Your task to perform on an android device: Search for a new blush on Sephora Image 0: 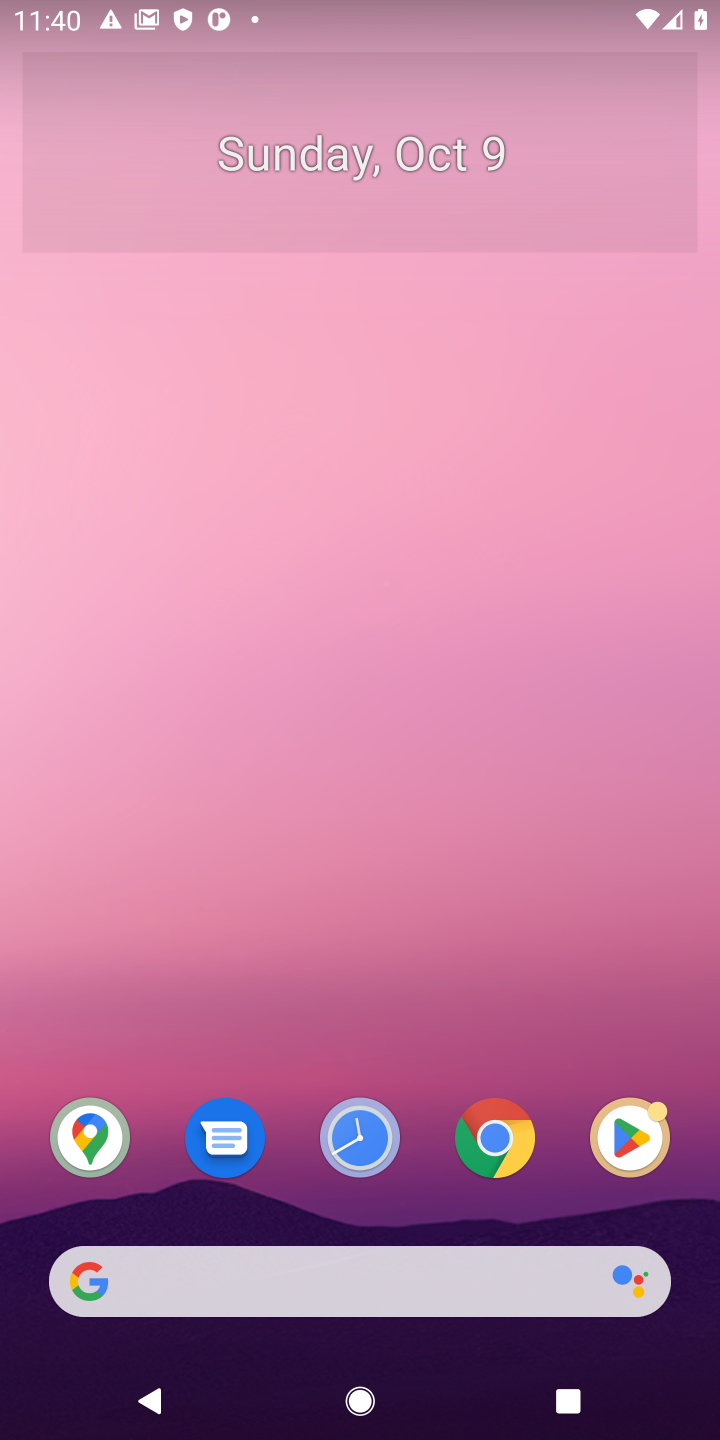
Step 0: click (515, 1120)
Your task to perform on an android device: Search for a new blush on Sephora Image 1: 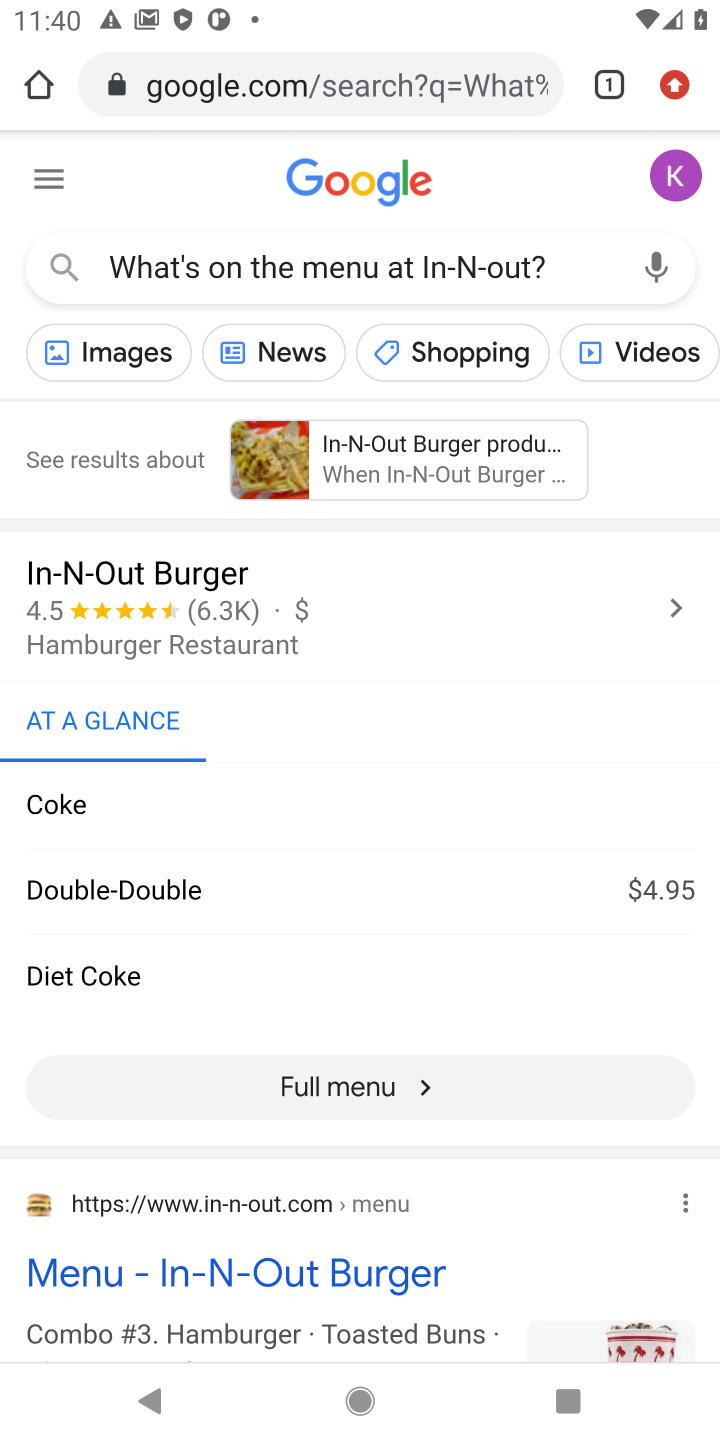
Step 1: click (550, 282)
Your task to perform on an android device: Search for a new blush on Sephora Image 2: 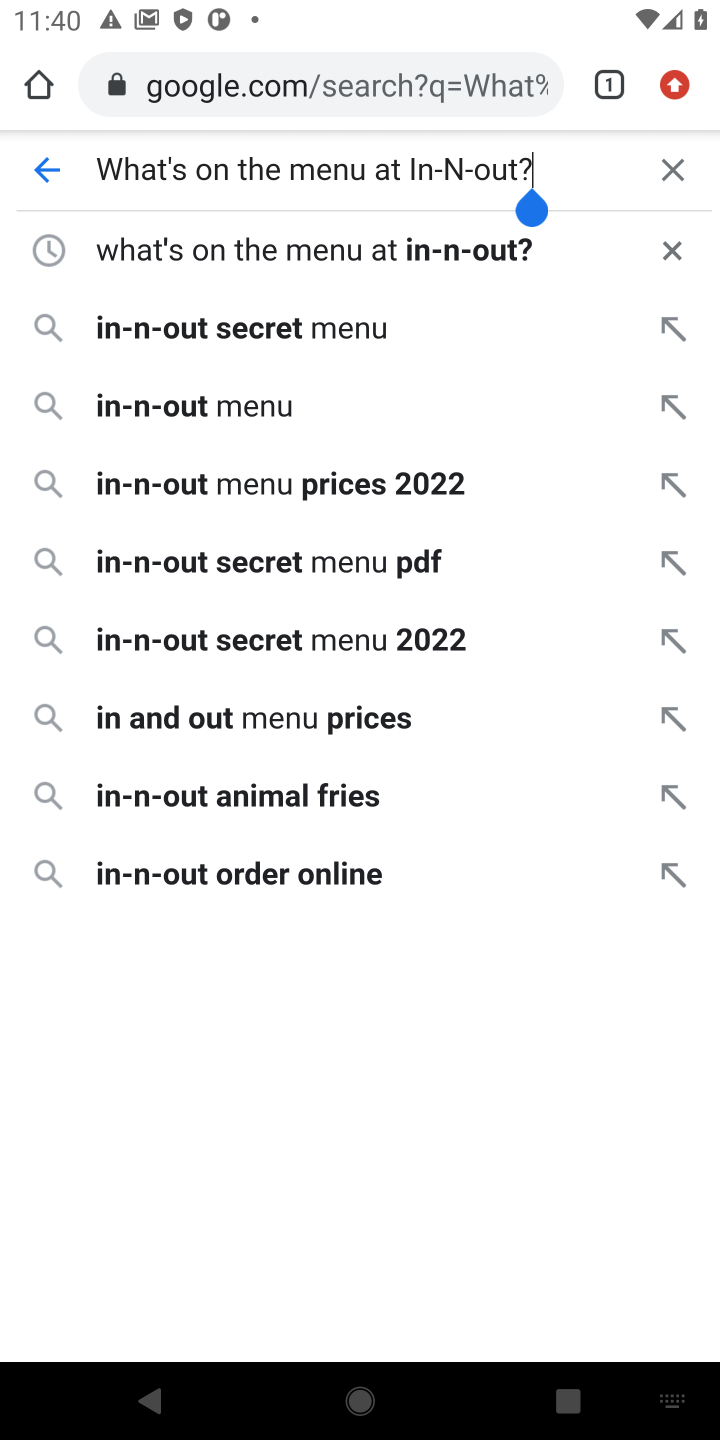
Step 2: click (677, 163)
Your task to perform on an android device: Search for a new blush on Sephora Image 3: 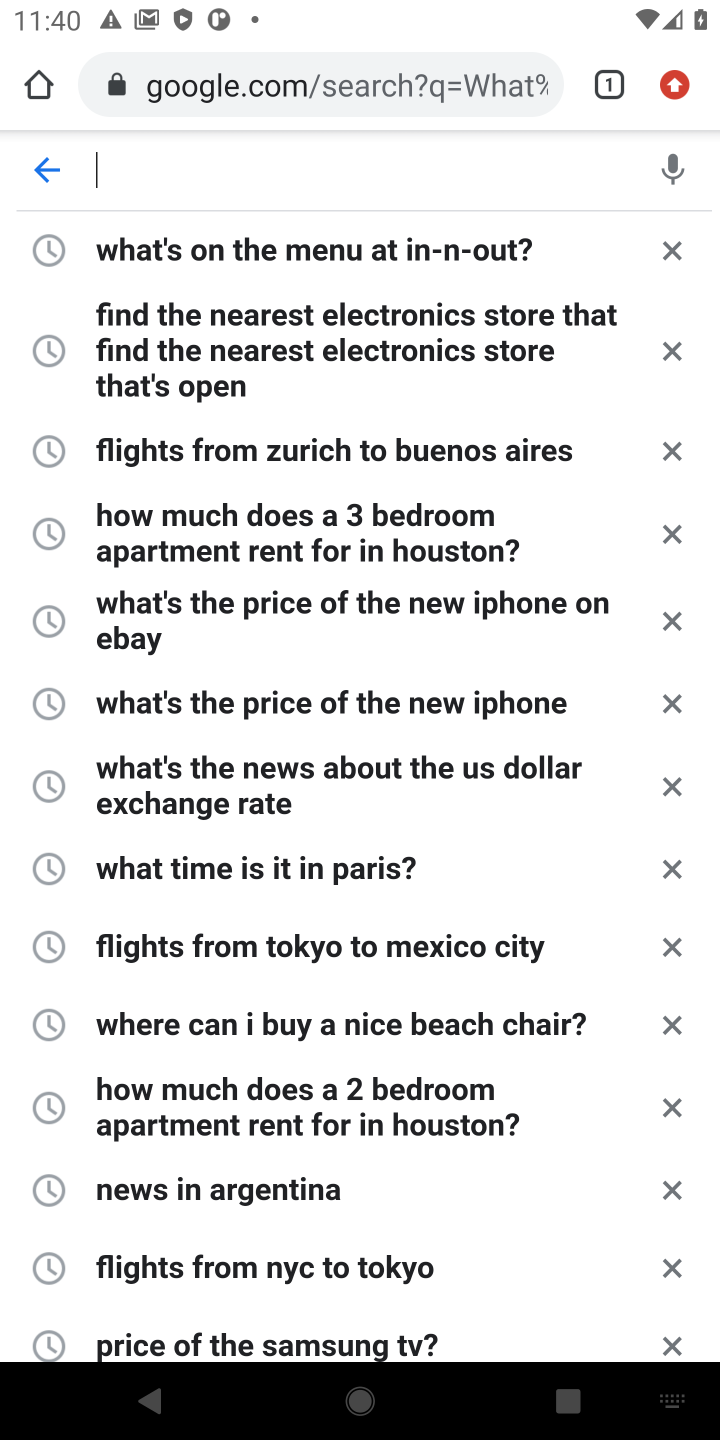
Step 3: type "new blush on Sephora"
Your task to perform on an android device: Search for a new blush on Sephora Image 4: 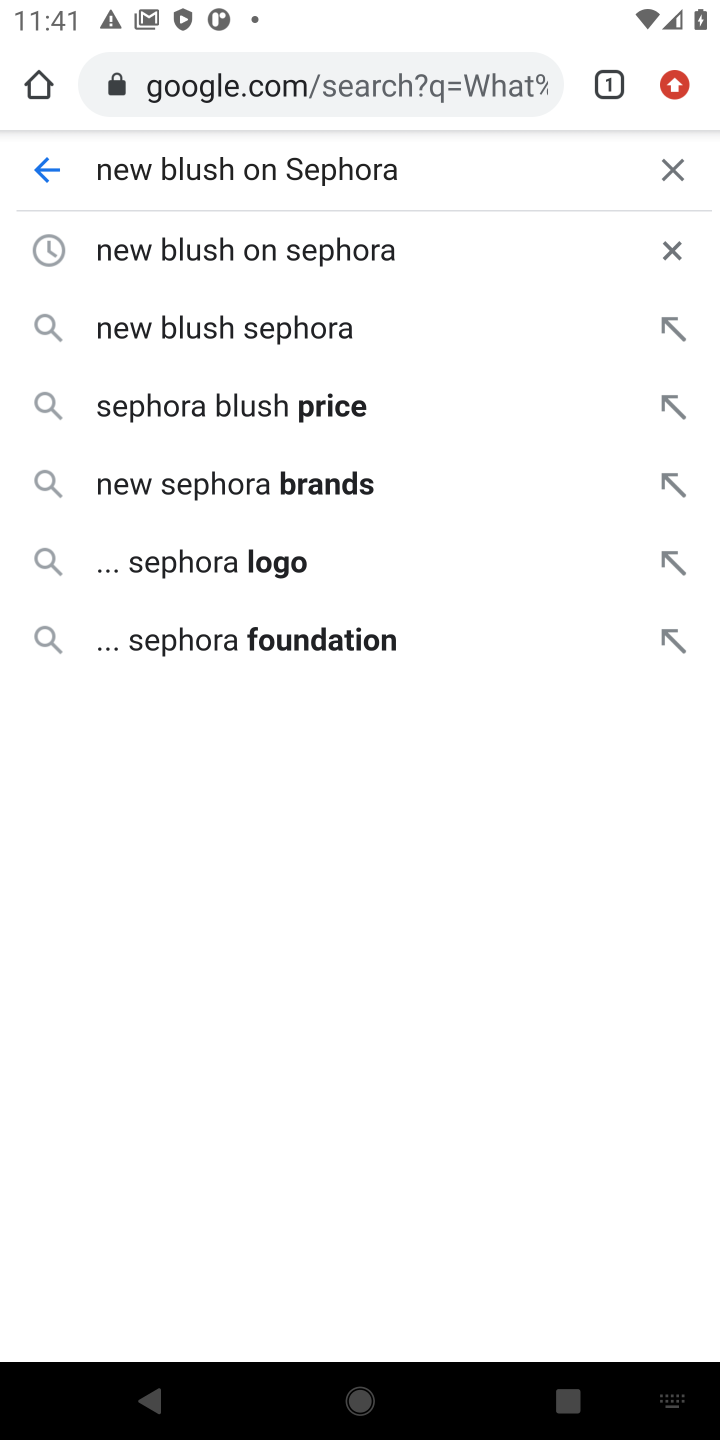
Step 4: press enter
Your task to perform on an android device: Search for a new blush on Sephora Image 5: 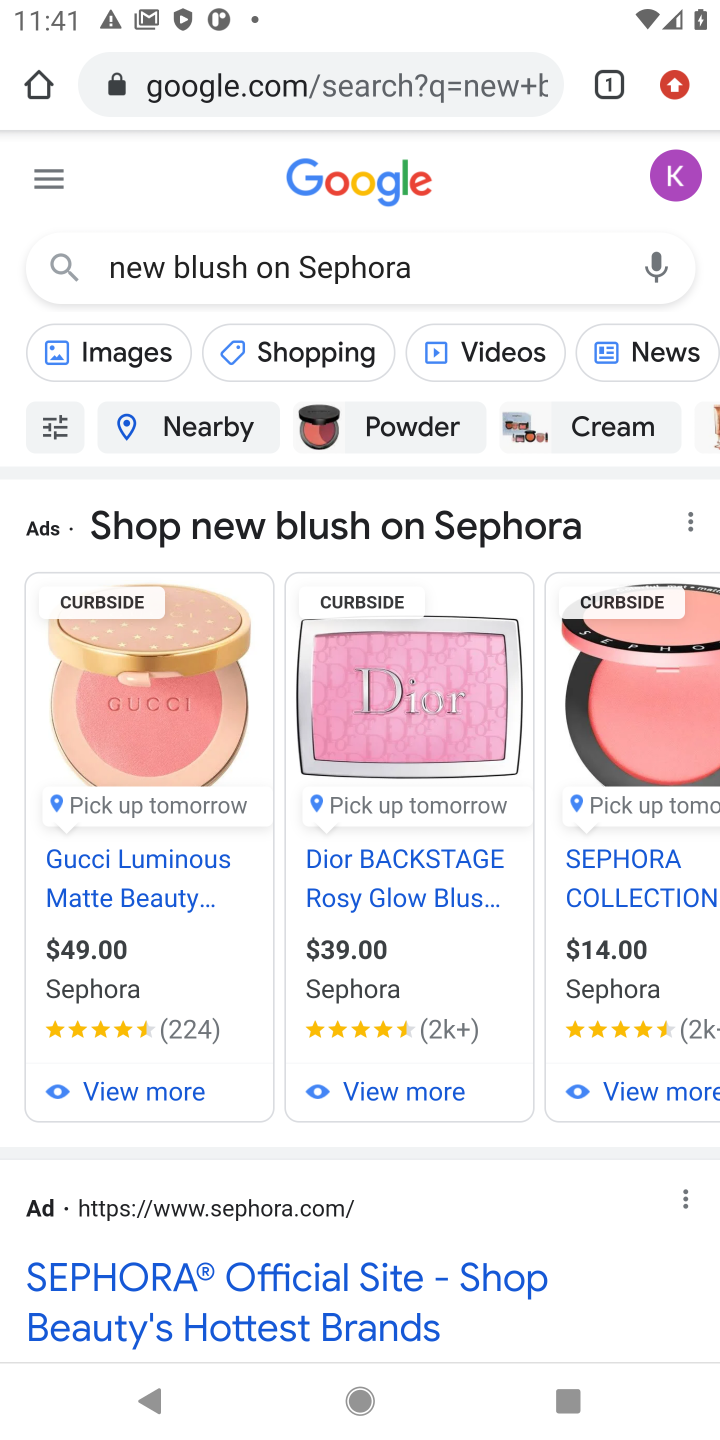
Step 5: task complete